Your task to perform on an android device: Find coffee shops on Maps Image 0: 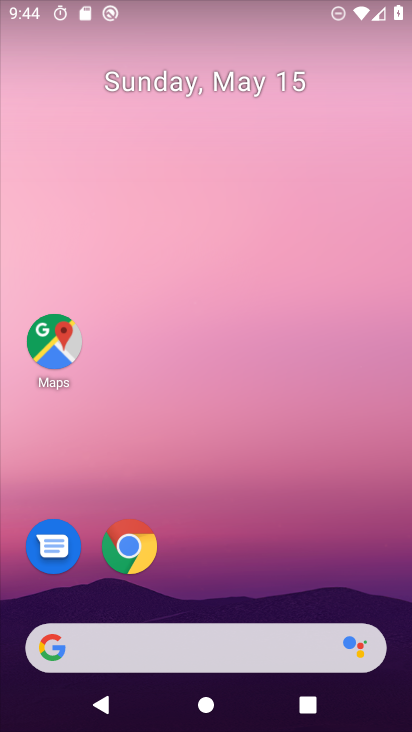
Step 0: click (56, 330)
Your task to perform on an android device: Find coffee shops on Maps Image 1: 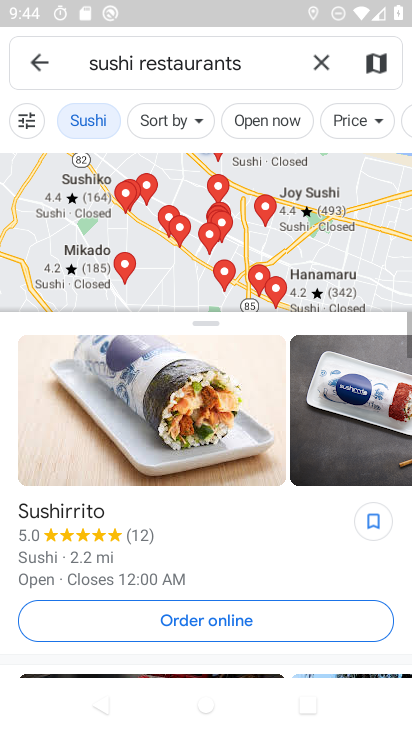
Step 1: click (319, 61)
Your task to perform on an android device: Find coffee shops on Maps Image 2: 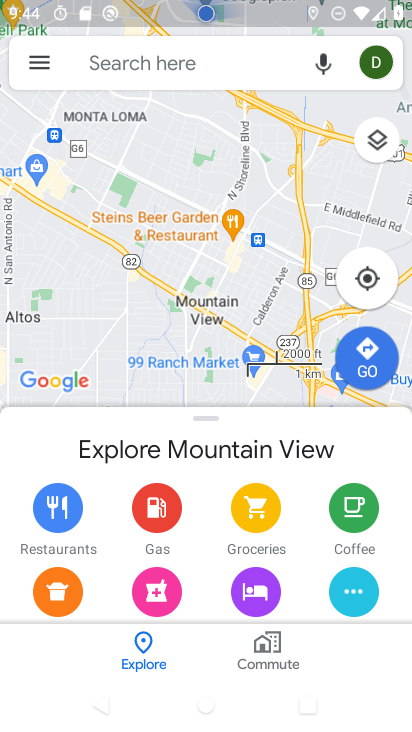
Step 2: click (206, 55)
Your task to perform on an android device: Find coffee shops on Maps Image 3: 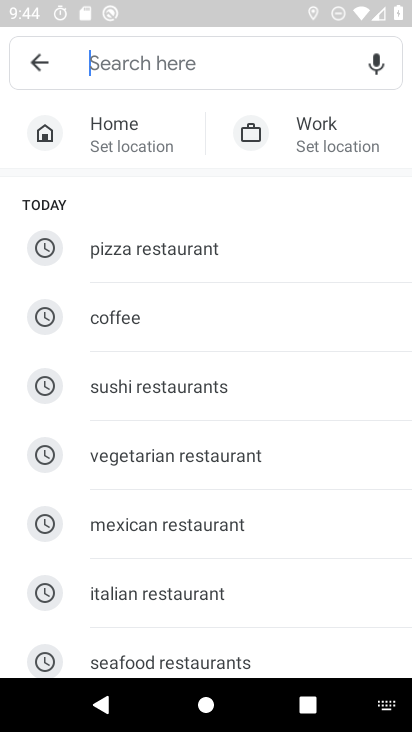
Step 3: click (145, 310)
Your task to perform on an android device: Find coffee shops on Maps Image 4: 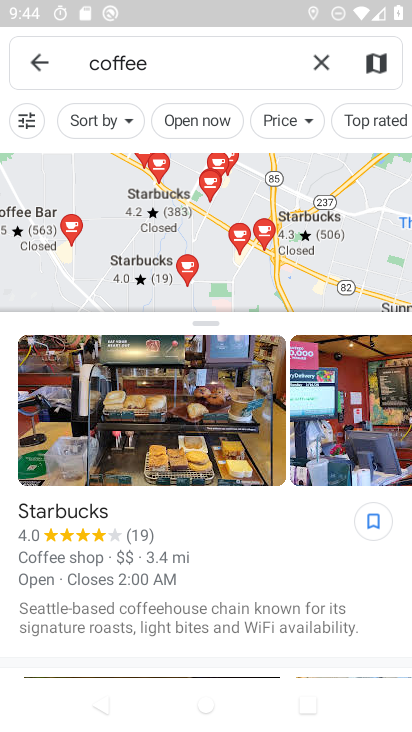
Step 4: task complete